Your task to perform on an android device: see sites visited before in the chrome app Image 0: 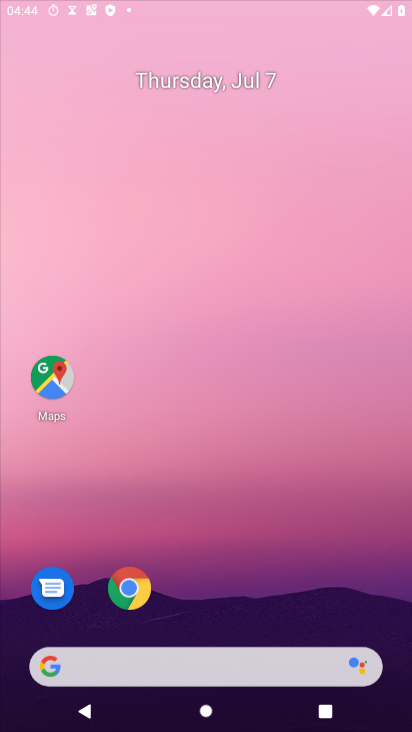
Step 0: press home button
Your task to perform on an android device: see sites visited before in the chrome app Image 1: 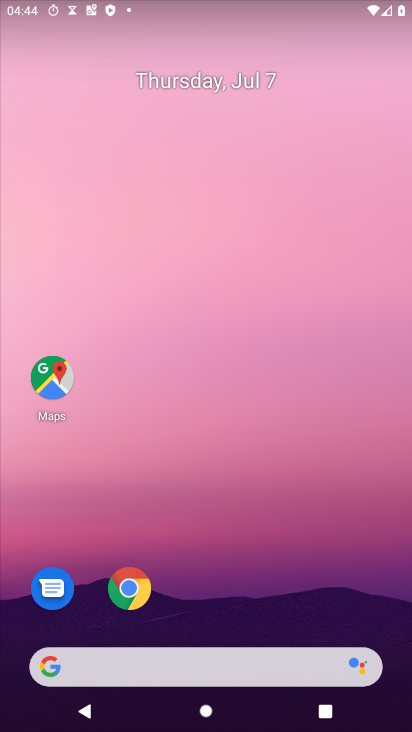
Step 1: drag from (239, 608) to (247, 166)
Your task to perform on an android device: see sites visited before in the chrome app Image 2: 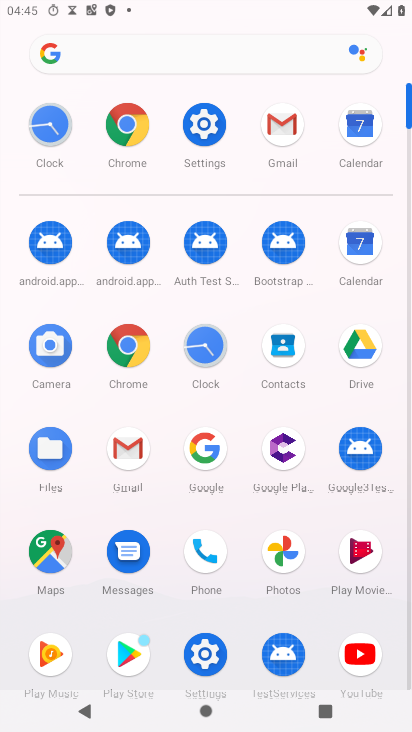
Step 2: click (133, 132)
Your task to perform on an android device: see sites visited before in the chrome app Image 3: 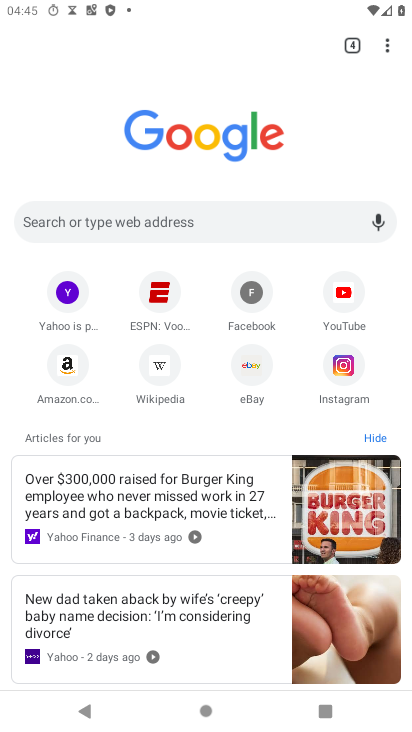
Step 3: task complete